Your task to perform on an android device: install app "File Manager" Image 0: 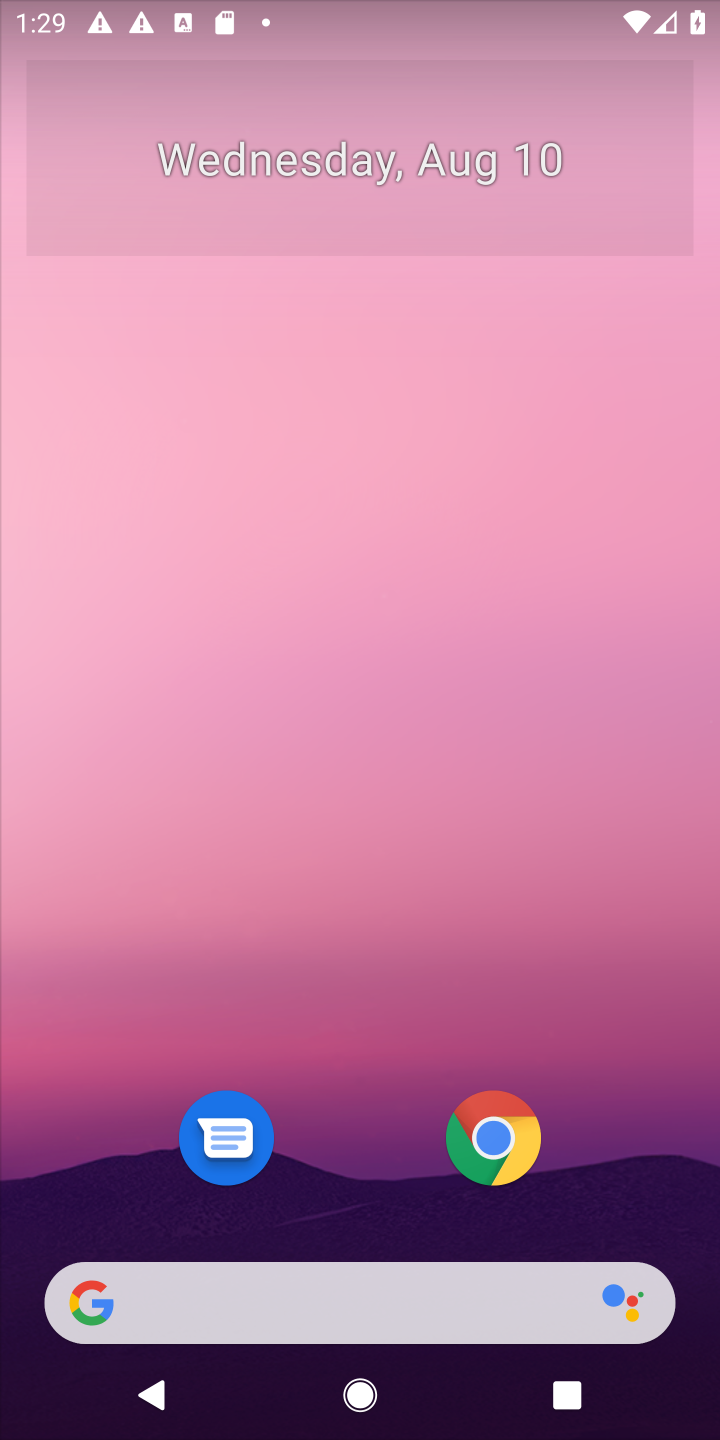
Step 0: press home button
Your task to perform on an android device: install app "File Manager" Image 1: 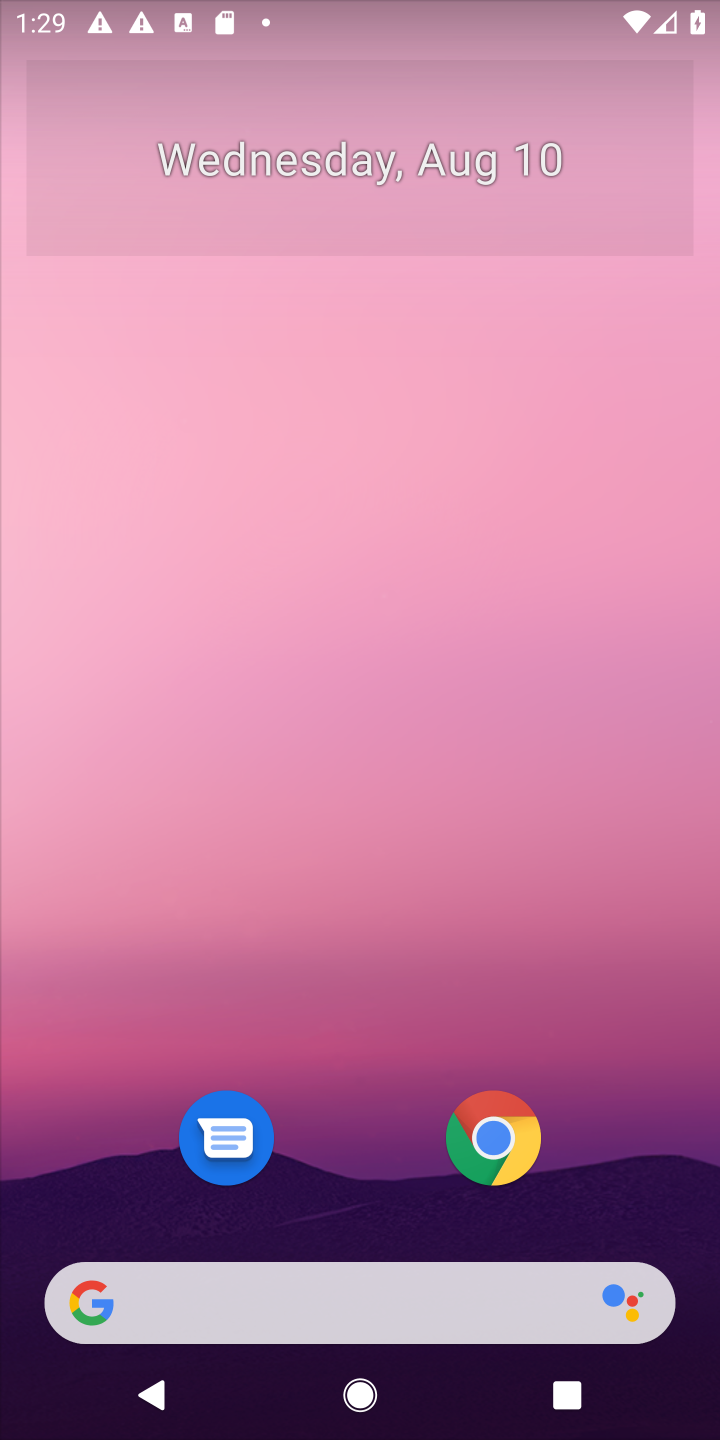
Step 1: drag from (611, 1198) to (667, 50)
Your task to perform on an android device: install app "File Manager" Image 2: 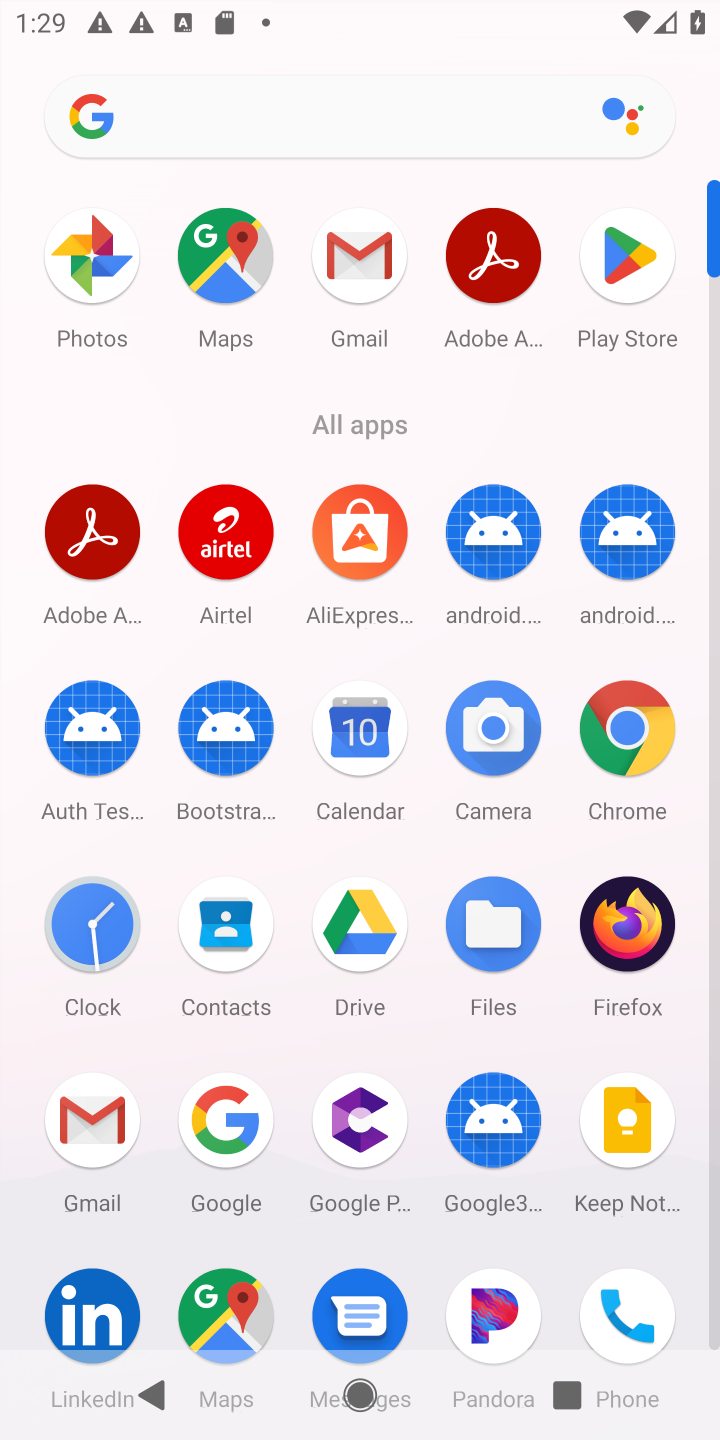
Step 2: click (623, 230)
Your task to perform on an android device: install app "File Manager" Image 3: 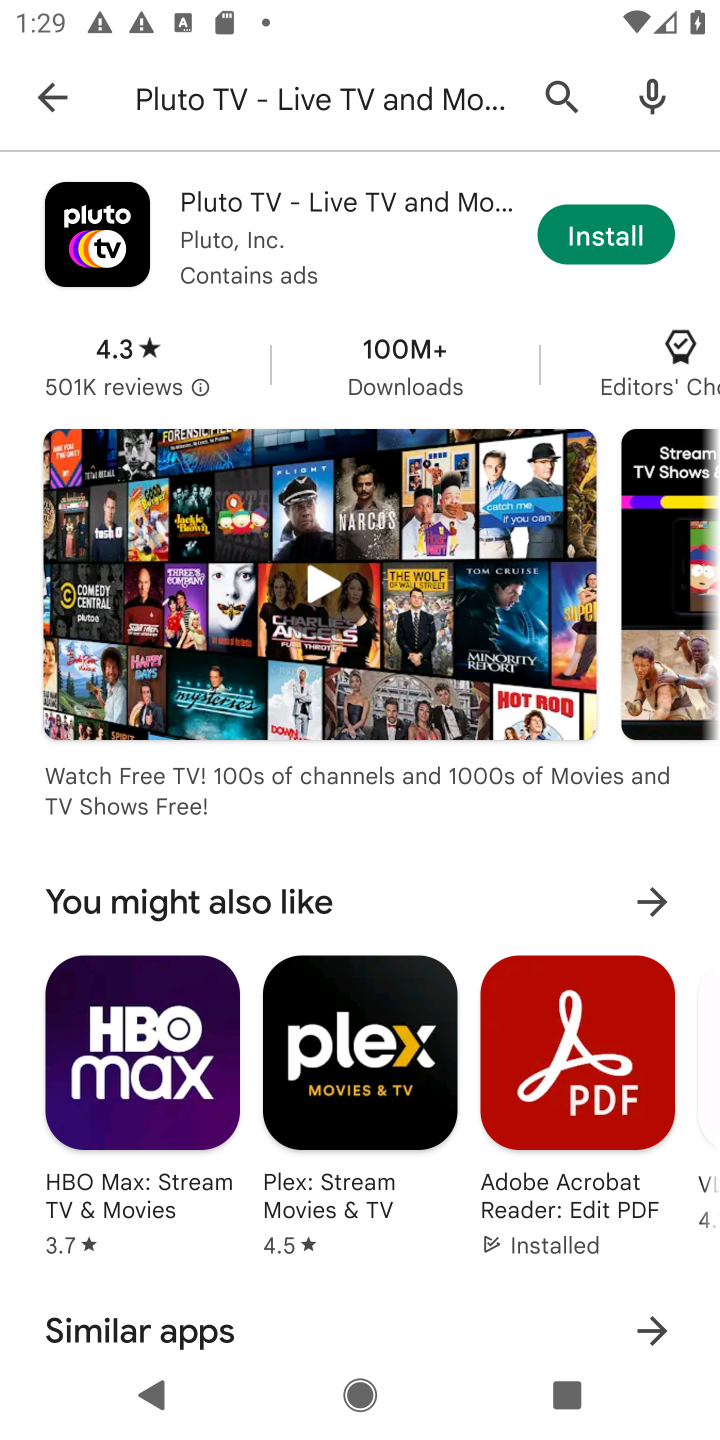
Step 3: click (560, 98)
Your task to perform on an android device: install app "File Manager" Image 4: 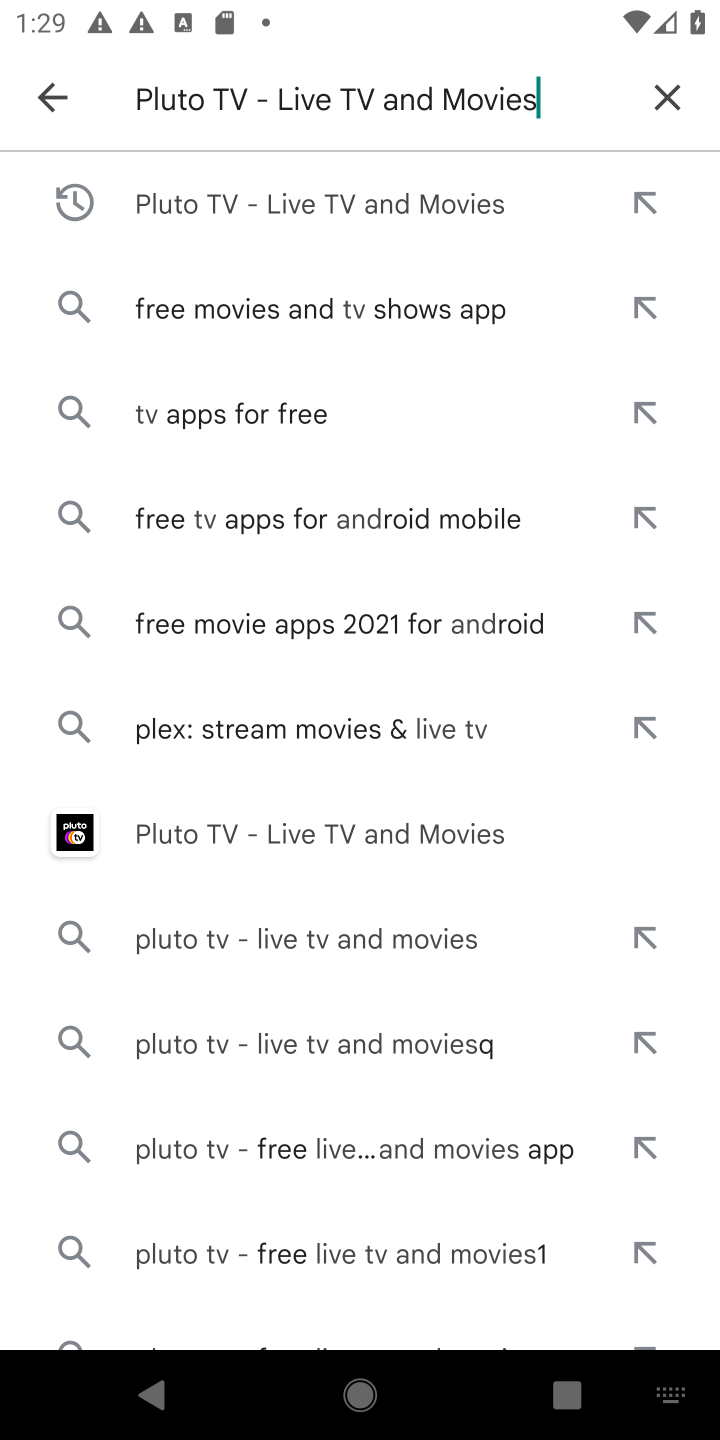
Step 4: click (663, 93)
Your task to perform on an android device: install app "File Manager" Image 5: 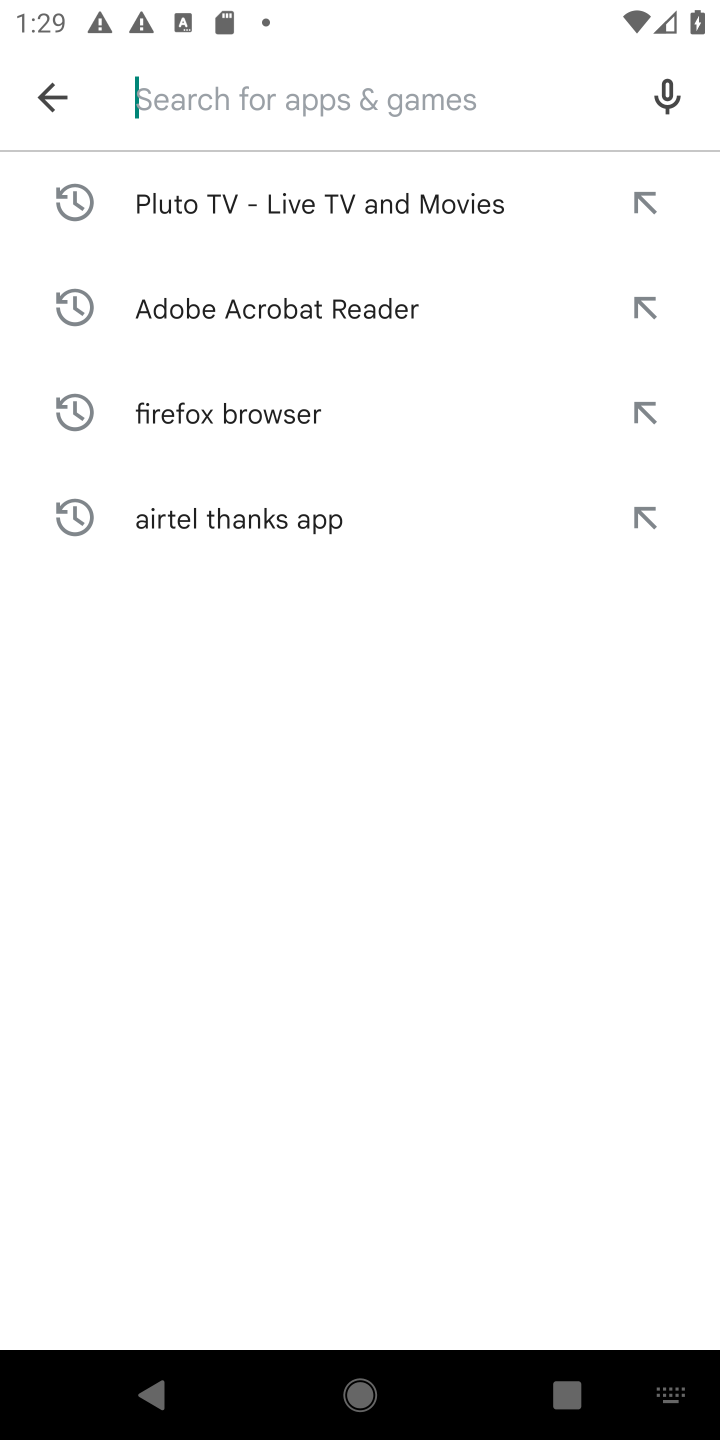
Step 5: type "file manager"
Your task to perform on an android device: install app "File Manager" Image 6: 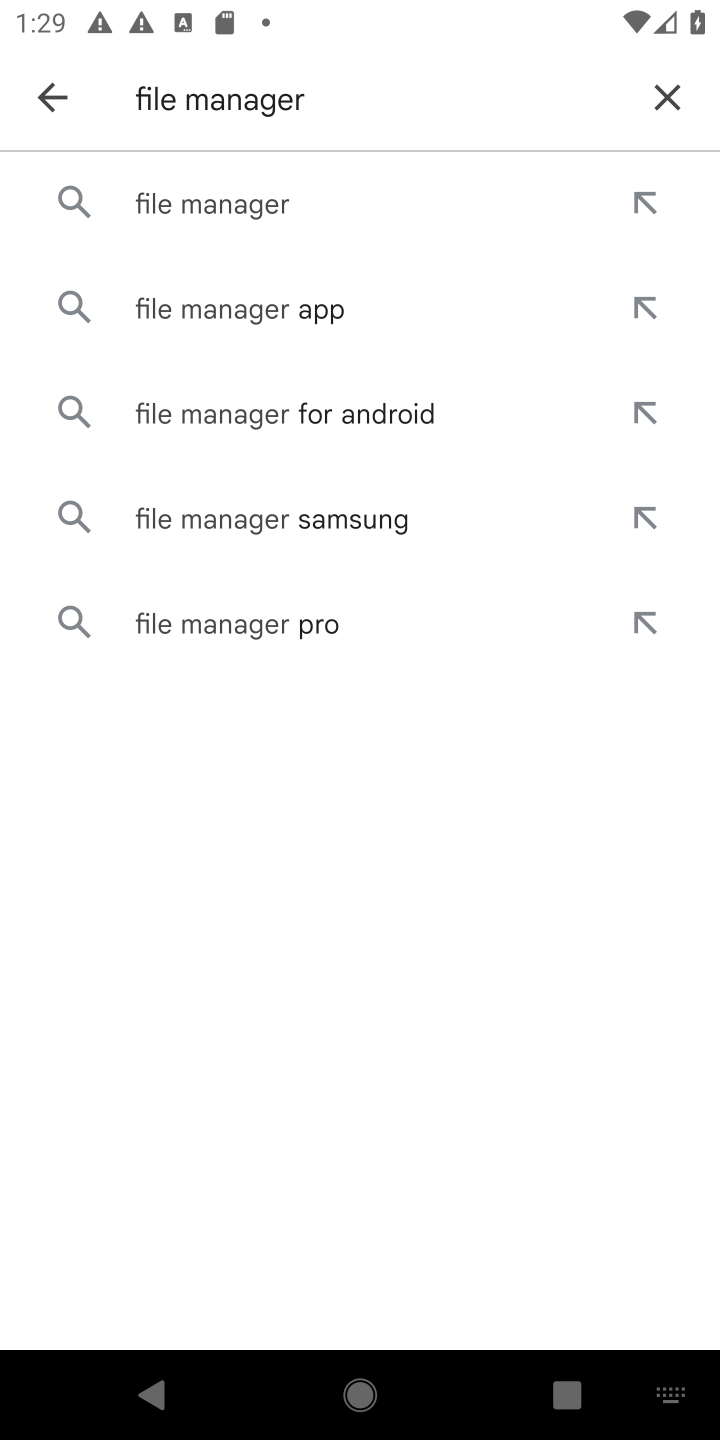
Step 6: click (370, 223)
Your task to perform on an android device: install app "File Manager" Image 7: 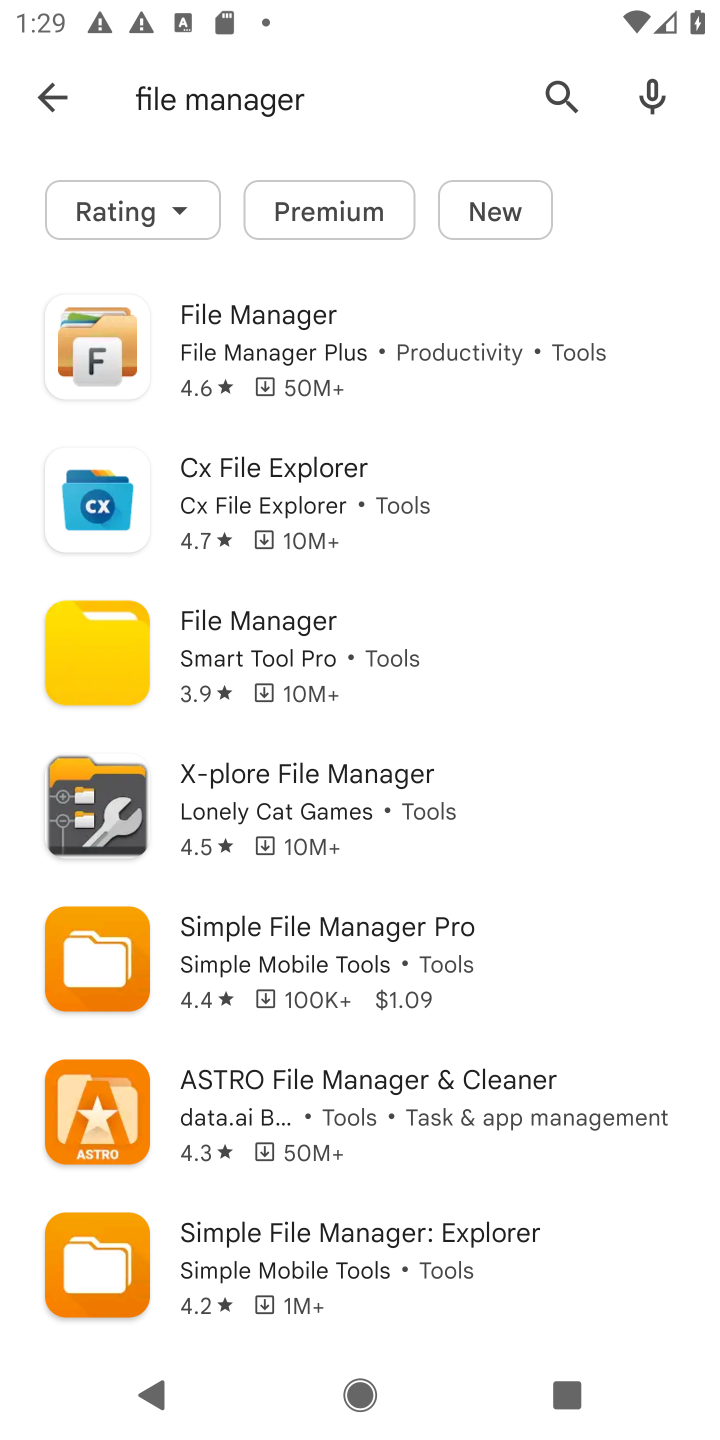
Step 7: task complete